Your task to perform on an android device: Open CNN.com Image 0: 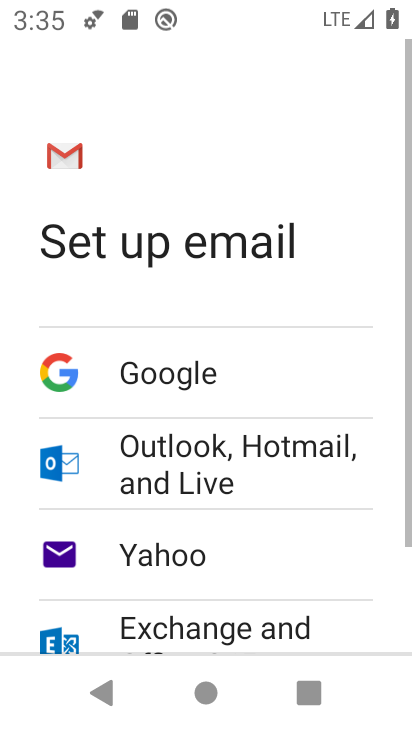
Step 0: press home button
Your task to perform on an android device: Open CNN.com Image 1: 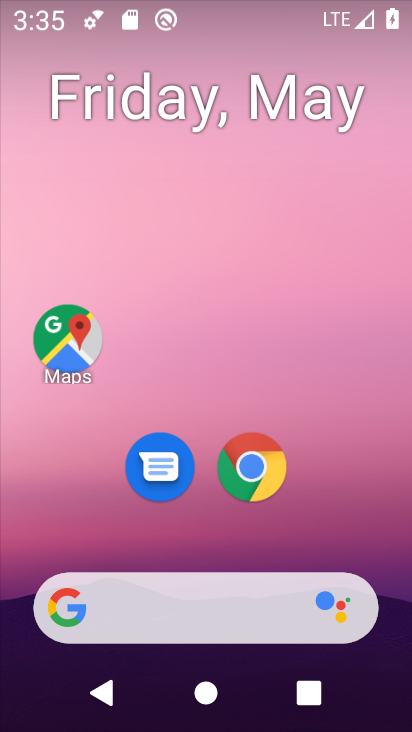
Step 1: click (263, 469)
Your task to perform on an android device: Open CNN.com Image 2: 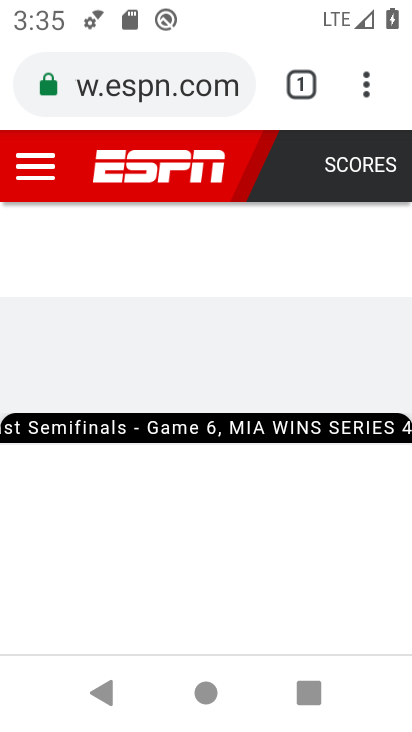
Step 2: click (297, 83)
Your task to perform on an android device: Open CNN.com Image 3: 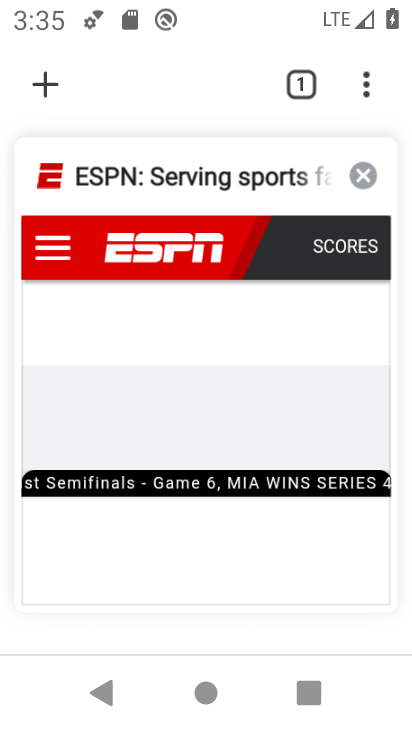
Step 3: click (36, 85)
Your task to perform on an android device: Open CNN.com Image 4: 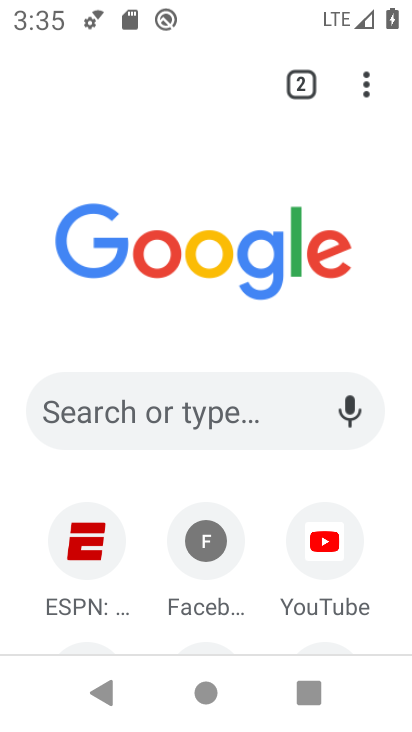
Step 4: click (203, 404)
Your task to perform on an android device: Open CNN.com Image 5: 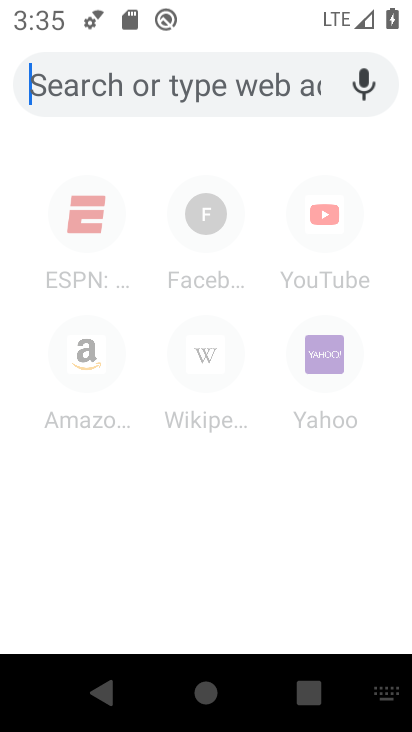
Step 5: type "CNN.com"
Your task to perform on an android device: Open CNN.com Image 6: 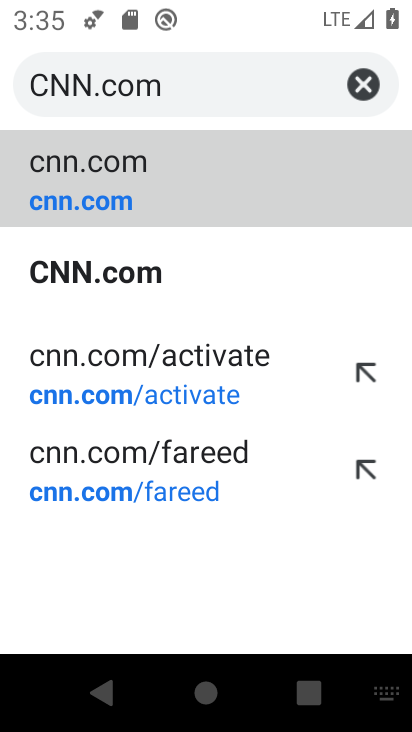
Step 6: click (163, 193)
Your task to perform on an android device: Open CNN.com Image 7: 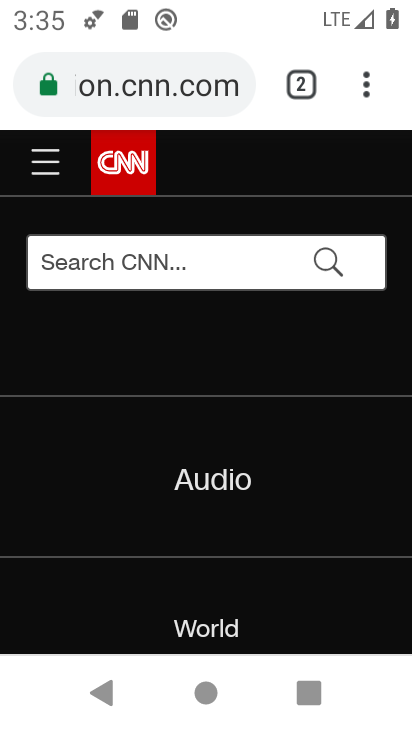
Step 7: task complete